Your task to perform on an android device: change the clock display to analog Image 0: 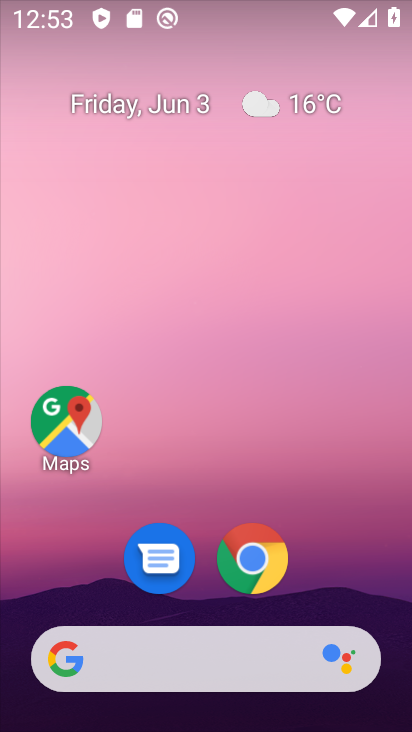
Step 0: drag from (374, 551) to (376, 180)
Your task to perform on an android device: change the clock display to analog Image 1: 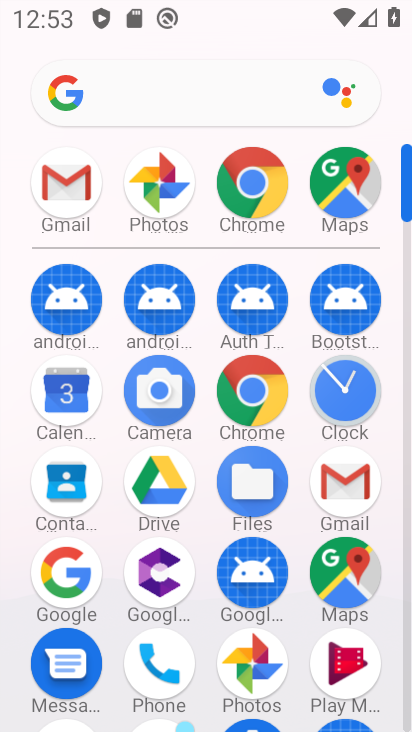
Step 1: click (339, 385)
Your task to perform on an android device: change the clock display to analog Image 2: 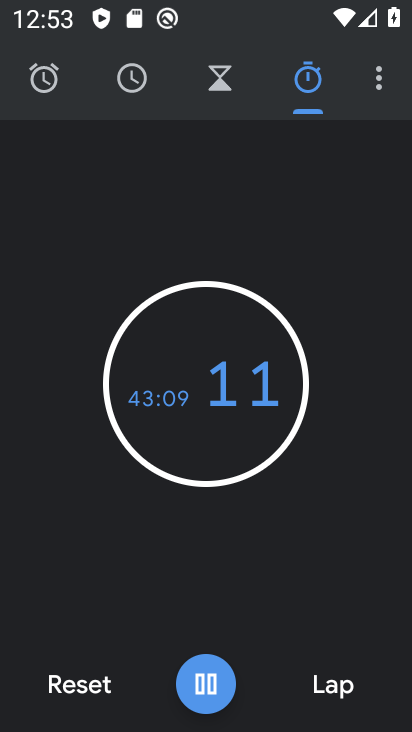
Step 2: click (382, 86)
Your task to perform on an android device: change the clock display to analog Image 3: 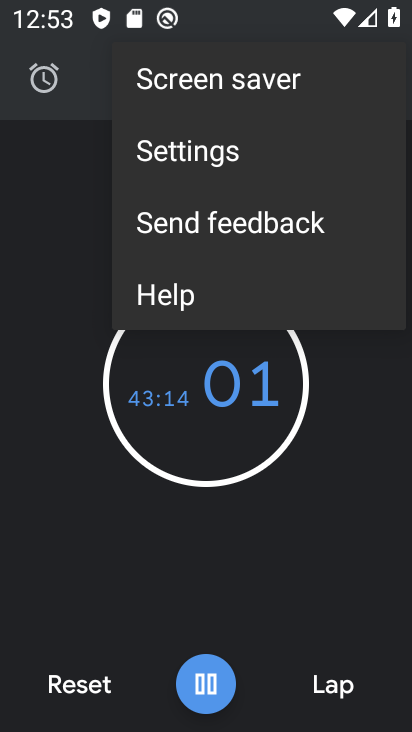
Step 3: click (252, 145)
Your task to perform on an android device: change the clock display to analog Image 4: 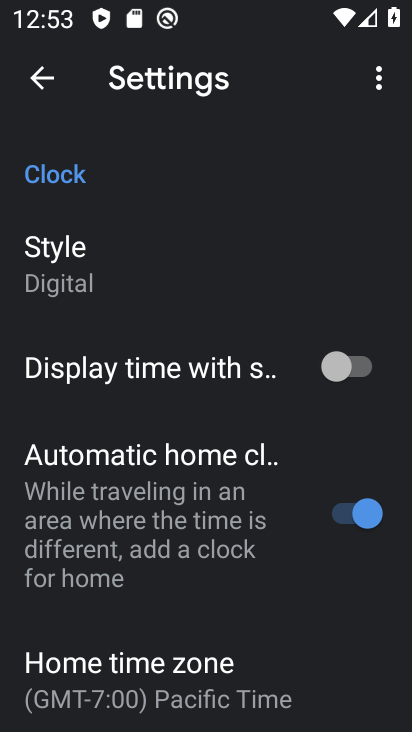
Step 4: drag from (288, 555) to (291, 456)
Your task to perform on an android device: change the clock display to analog Image 5: 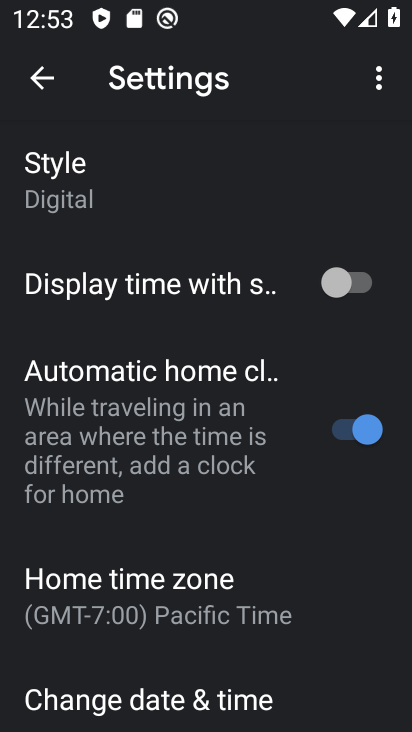
Step 5: drag from (306, 607) to (307, 462)
Your task to perform on an android device: change the clock display to analog Image 6: 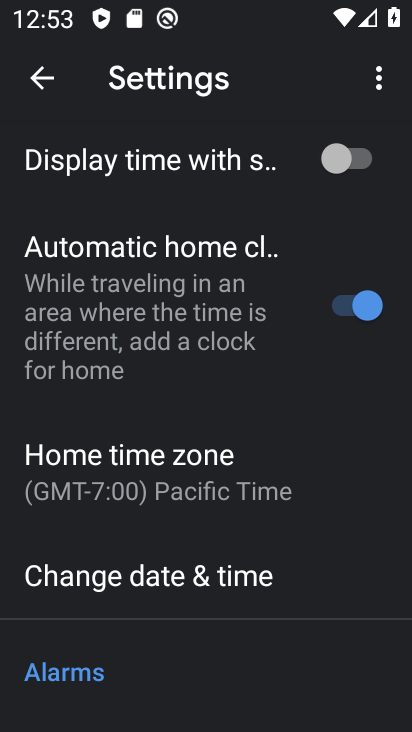
Step 6: drag from (324, 590) to (326, 467)
Your task to perform on an android device: change the clock display to analog Image 7: 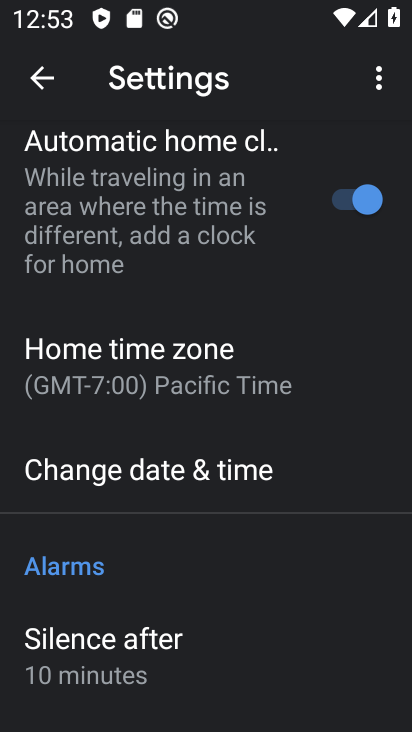
Step 7: drag from (325, 618) to (342, 490)
Your task to perform on an android device: change the clock display to analog Image 8: 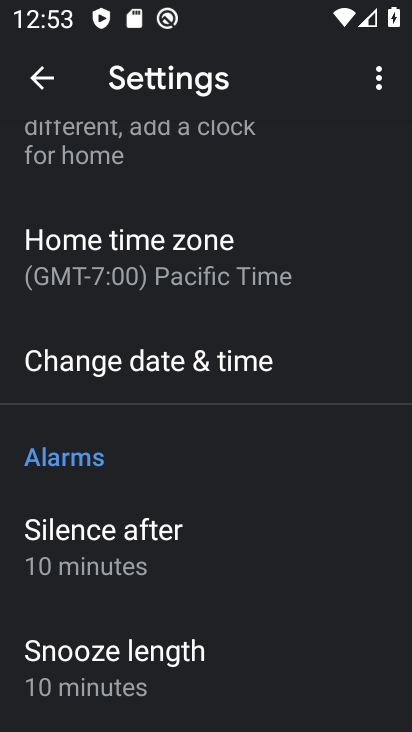
Step 8: drag from (329, 599) to (337, 500)
Your task to perform on an android device: change the clock display to analog Image 9: 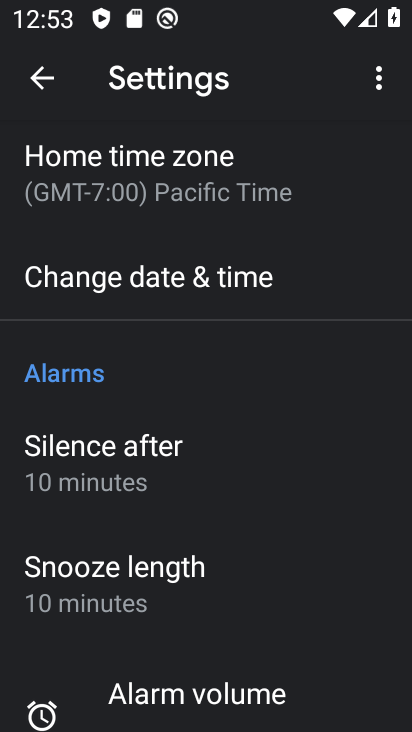
Step 9: drag from (316, 604) to (329, 498)
Your task to perform on an android device: change the clock display to analog Image 10: 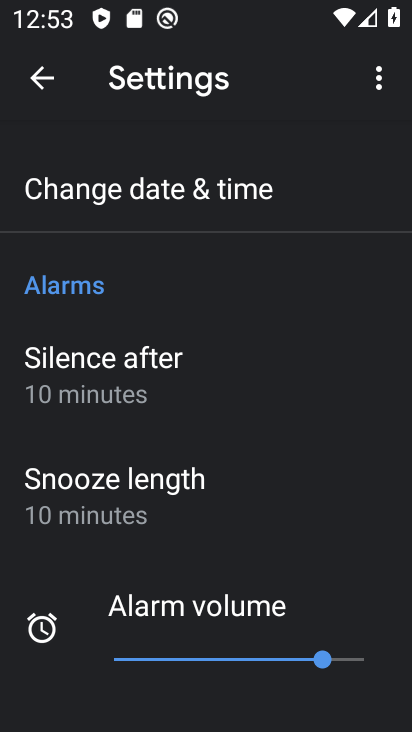
Step 10: drag from (329, 518) to (319, 414)
Your task to perform on an android device: change the clock display to analog Image 11: 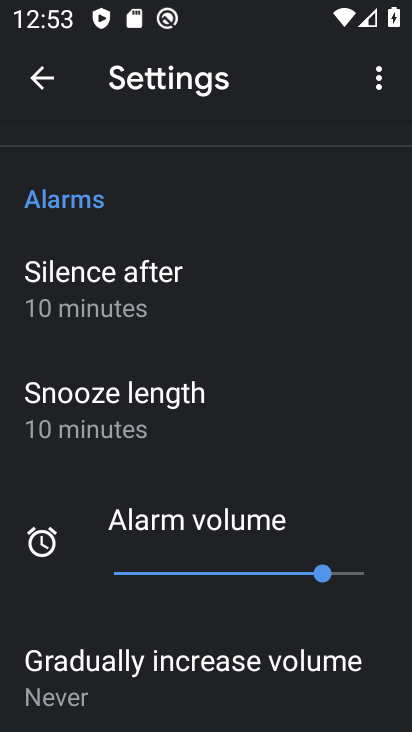
Step 11: drag from (327, 429) to (327, 362)
Your task to perform on an android device: change the clock display to analog Image 12: 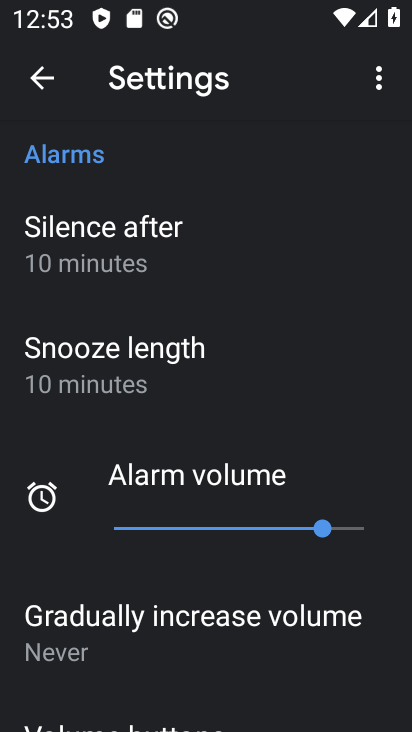
Step 12: drag from (340, 419) to (347, 302)
Your task to perform on an android device: change the clock display to analog Image 13: 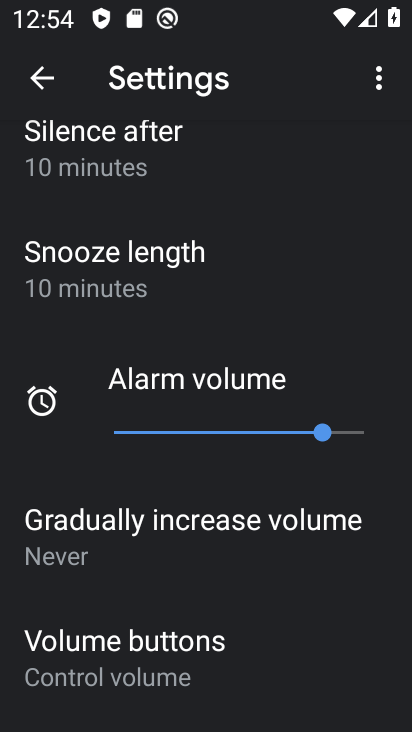
Step 13: drag from (332, 601) to (348, 437)
Your task to perform on an android device: change the clock display to analog Image 14: 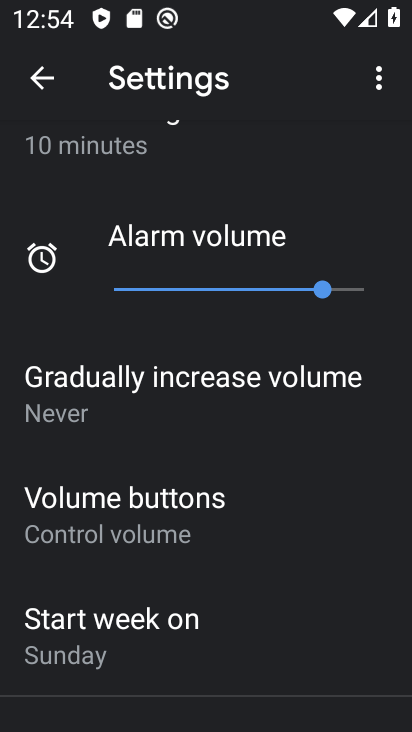
Step 14: drag from (356, 326) to (351, 437)
Your task to perform on an android device: change the clock display to analog Image 15: 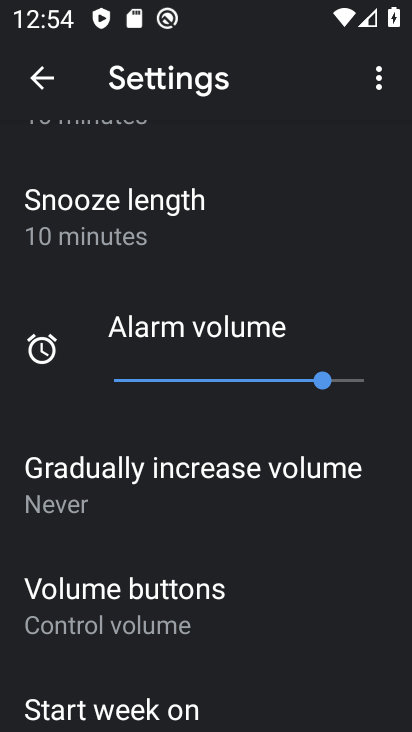
Step 15: drag from (367, 278) to (368, 410)
Your task to perform on an android device: change the clock display to analog Image 16: 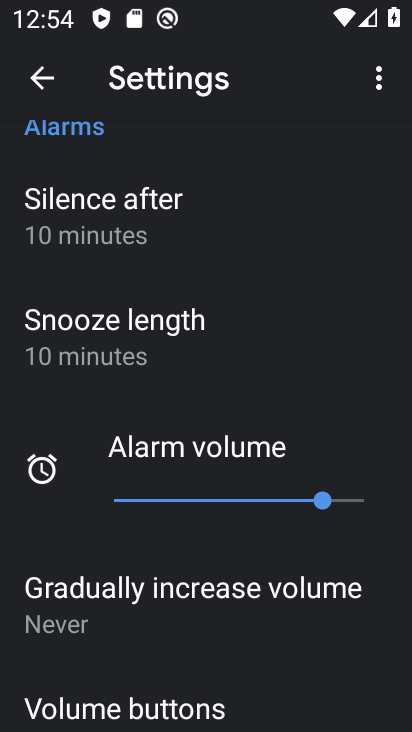
Step 16: drag from (355, 275) to (362, 398)
Your task to perform on an android device: change the clock display to analog Image 17: 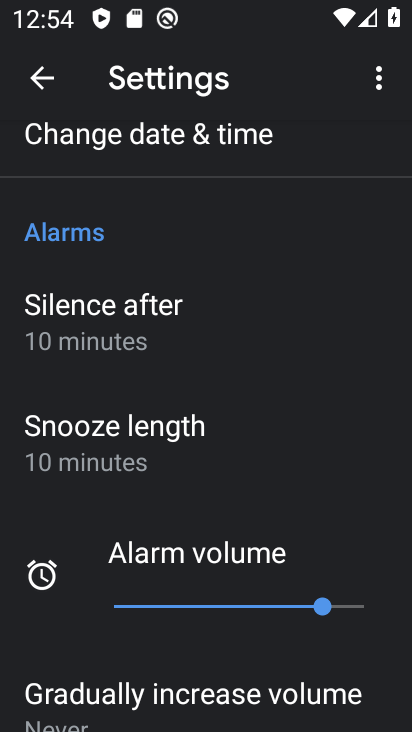
Step 17: drag from (365, 267) to (365, 404)
Your task to perform on an android device: change the clock display to analog Image 18: 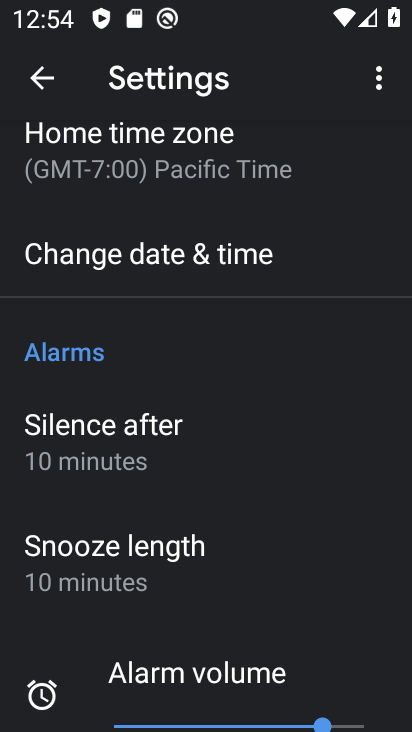
Step 18: drag from (348, 260) to (339, 380)
Your task to perform on an android device: change the clock display to analog Image 19: 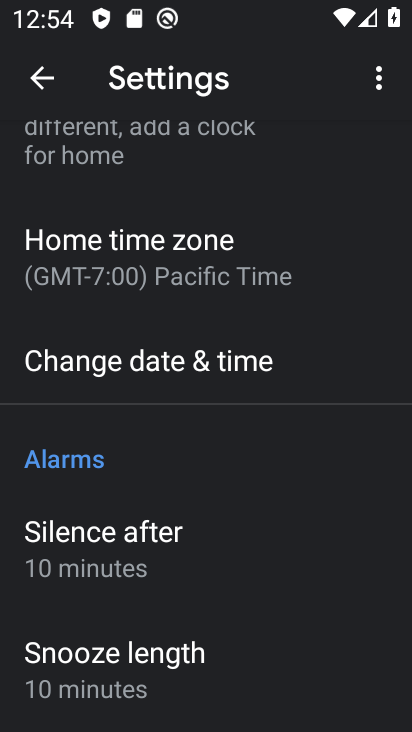
Step 19: drag from (337, 227) to (340, 370)
Your task to perform on an android device: change the clock display to analog Image 20: 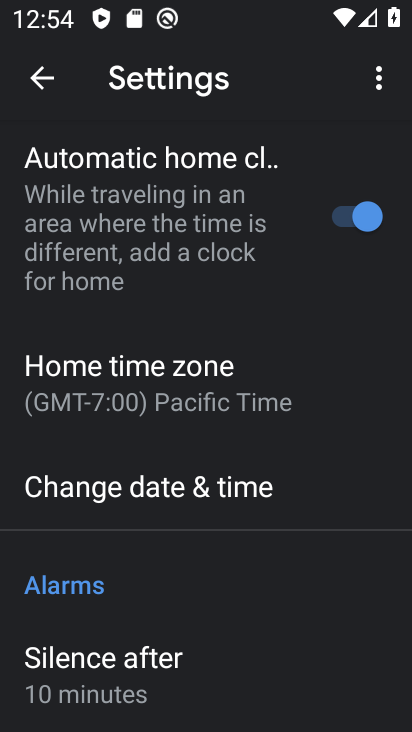
Step 20: drag from (301, 190) to (306, 376)
Your task to perform on an android device: change the clock display to analog Image 21: 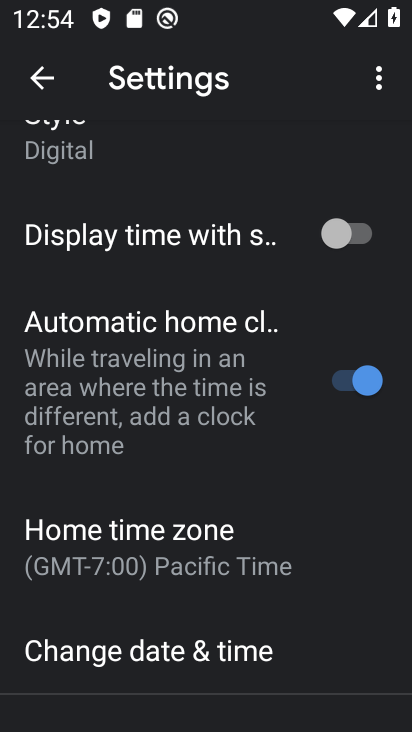
Step 21: drag from (250, 185) to (239, 311)
Your task to perform on an android device: change the clock display to analog Image 22: 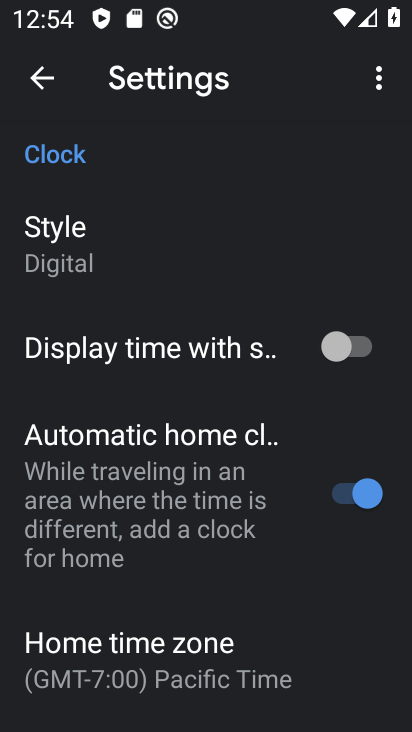
Step 22: click (95, 267)
Your task to perform on an android device: change the clock display to analog Image 23: 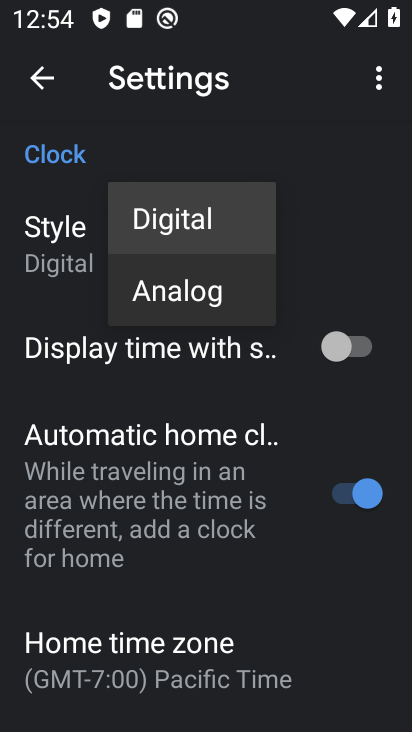
Step 23: click (205, 301)
Your task to perform on an android device: change the clock display to analog Image 24: 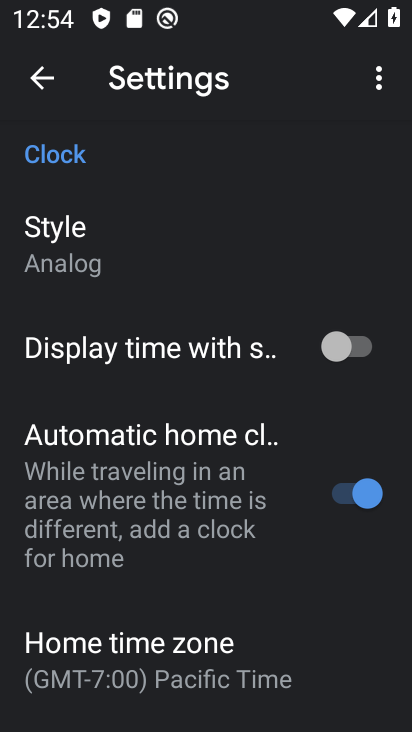
Step 24: task complete